Your task to perform on an android device: set the timer Image 0: 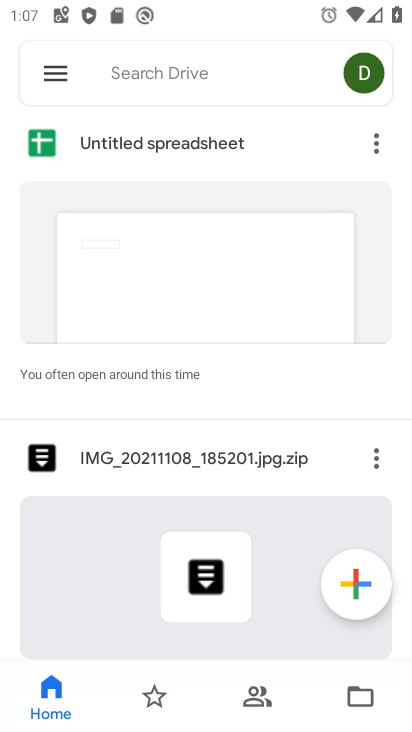
Step 0: press home button
Your task to perform on an android device: set the timer Image 1: 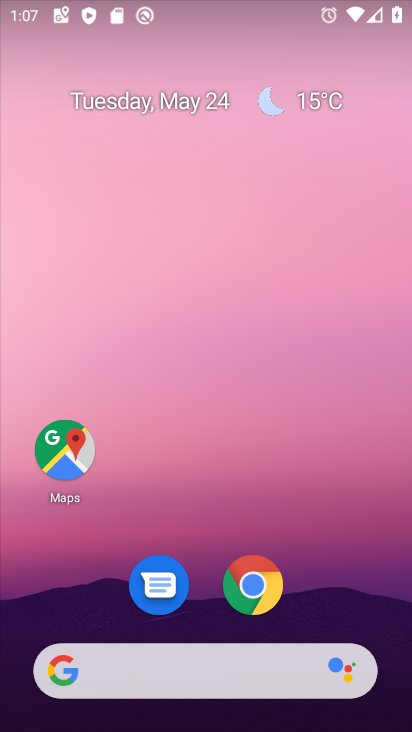
Step 1: drag from (188, 503) to (221, 3)
Your task to perform on an android device: set the timer Image 2: 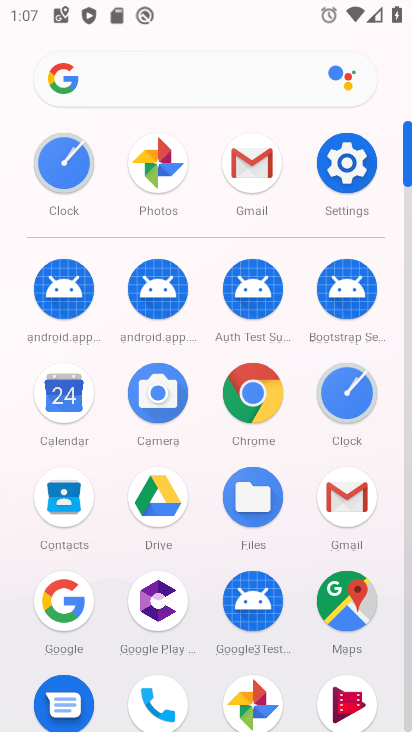
Step 2: click (341, 393)
Your task to perform on an android device: set the timer Image 3: 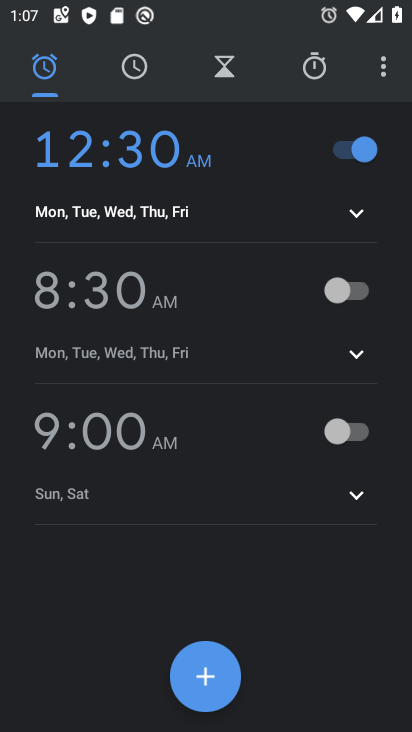
Step 3: click (223, 62)
Your task to perform on an android device: set the timer Image 4: 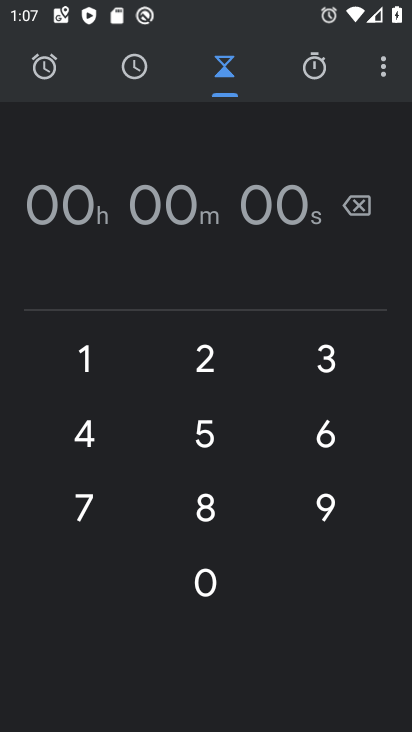
Step 4: task complete